Your task to perform on an android device: Go to ESPN.com Image 0: 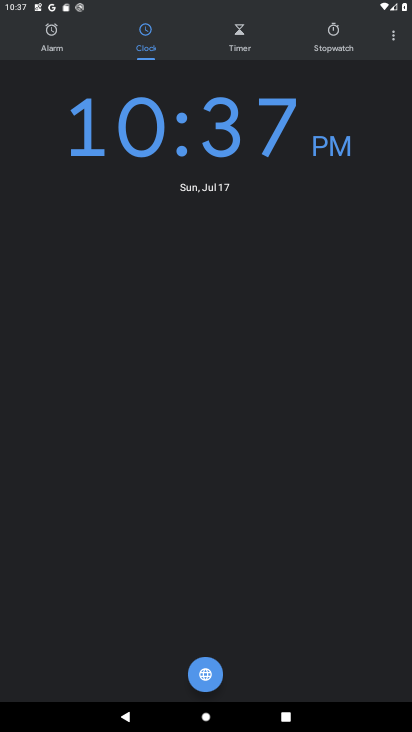
Step 0: press home button
Your task to perform on an android device: Go to ESPN.com Image 1: 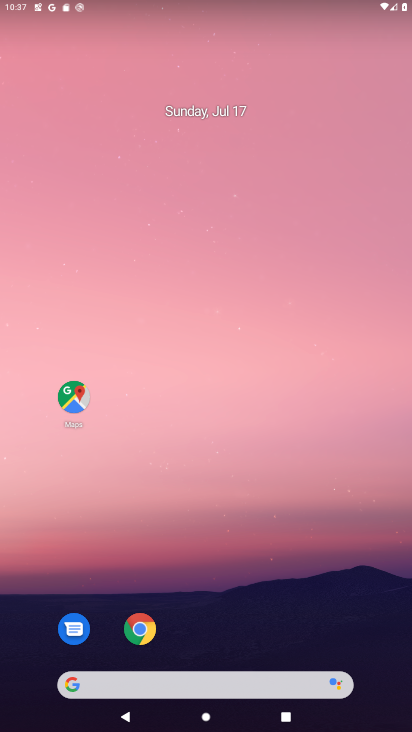
Step 1: click (140, 628)
Your task to perform on an android device: Go to ESPN.com Image 2: 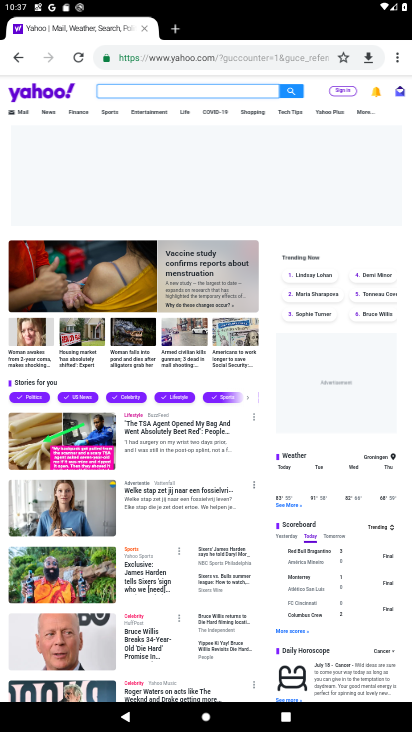
Step 2: click (252, 56)
Your task to perform on an android device: Go to ESPN.com Image 3: 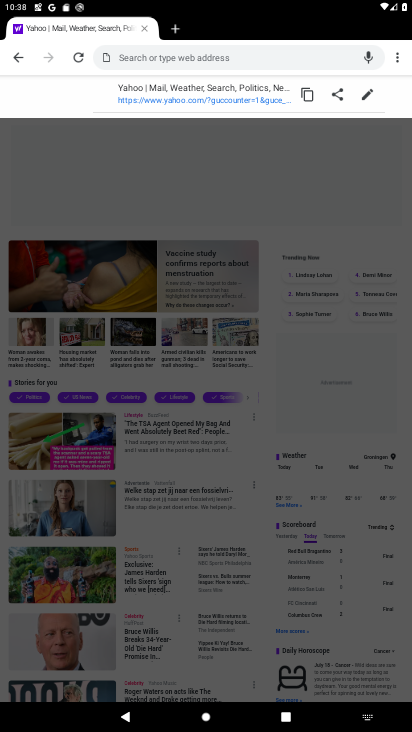
Step 3: type "ESPN.com"
Your task to perform on an android device: Go to ESPN.com Image 4: 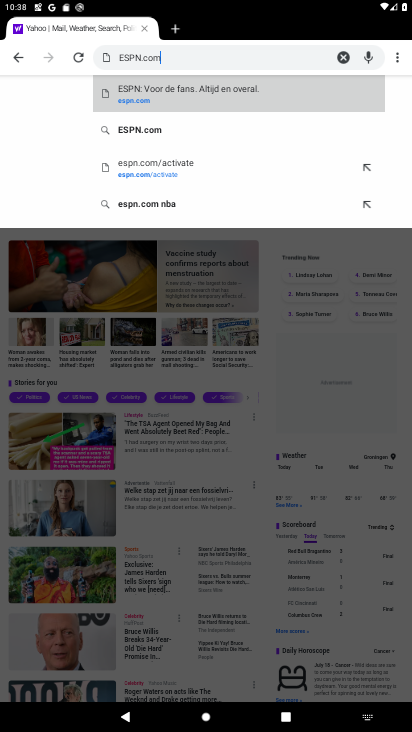
Step 4: click (158, 130)
Your task to perform on an android device: Go to ESPN.com Image 5: 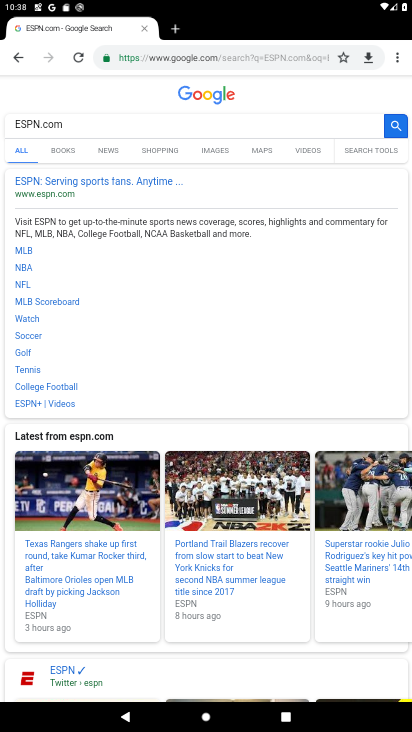
Step 5: click (150, 182)
Your task to perform on an android device: Go to ESPN.com Image 6: 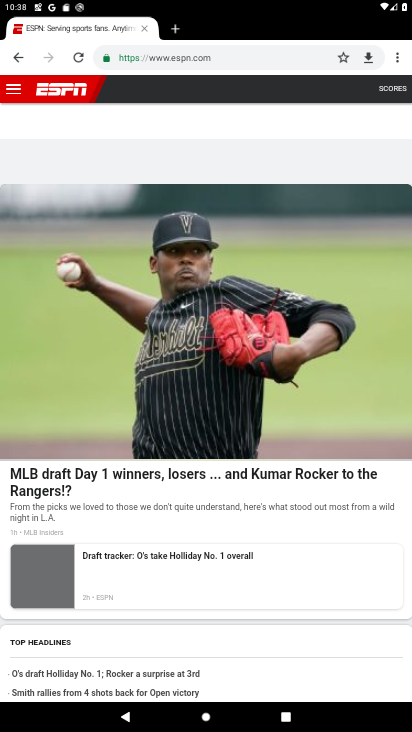
Step 6: task complete